Your task to perform on an android device: Go to Google Image 0: 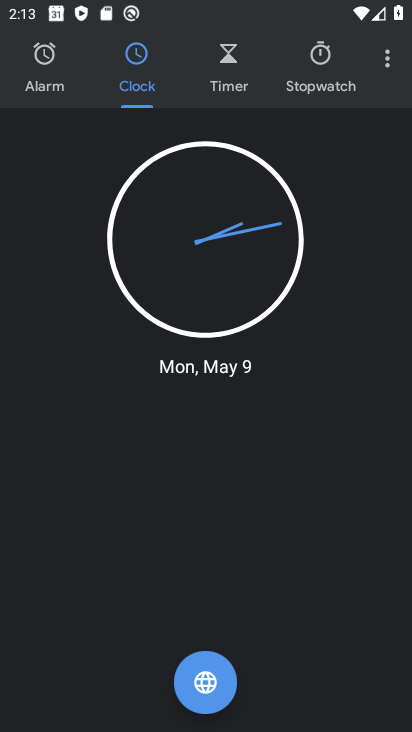
Step 0: press back button
Your task to perform on an android device: Go to Google Image 1: 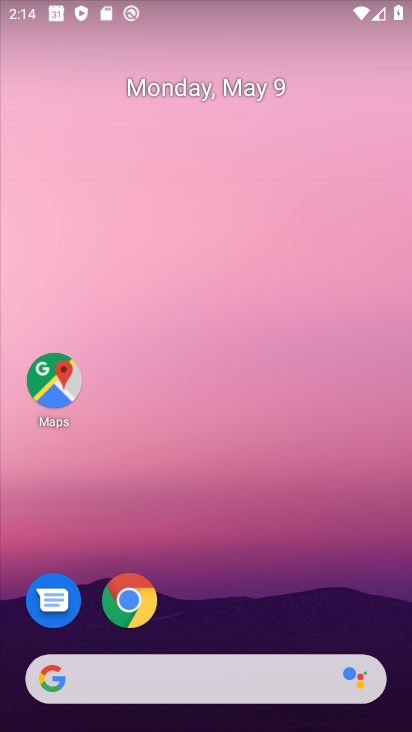
Step 1: drag from (271, 588) to (202, 0)
Your task to perform on an android device: Go to Google Image 2: 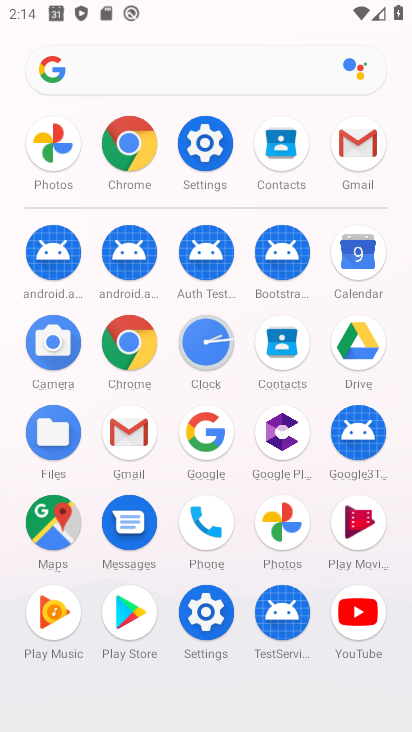
Step 2: click (127, 140)
Your task to perform on an android device: Go to Google Image 3: 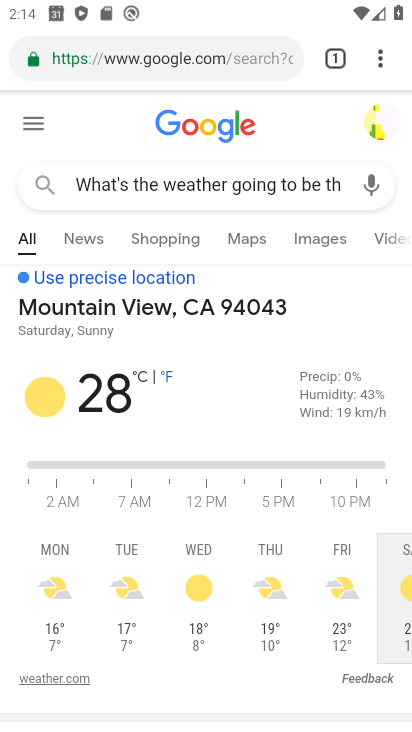
Step 3: click (180, 37)
Your task to perform on an android device: Go to Google Image 4: 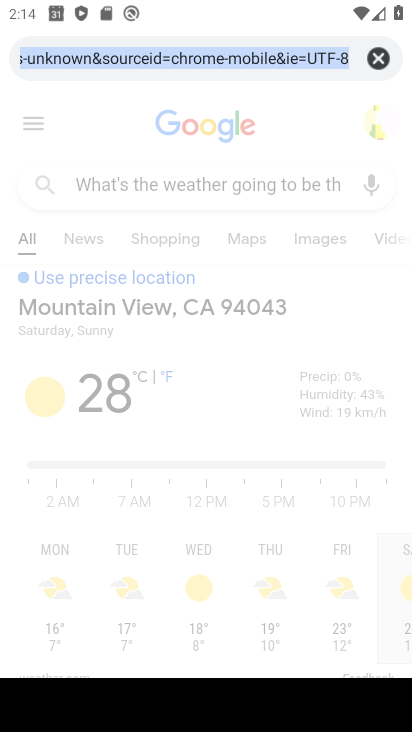
Step 4: click (378, 56)
Your task to perform on an android device: Go to Google Image 5: 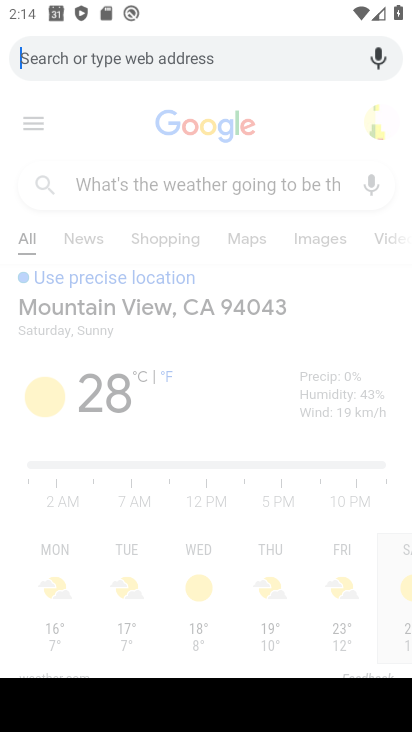
Step 5: type "Google"
Your task to perform on an android device: Go to Google Image 6: 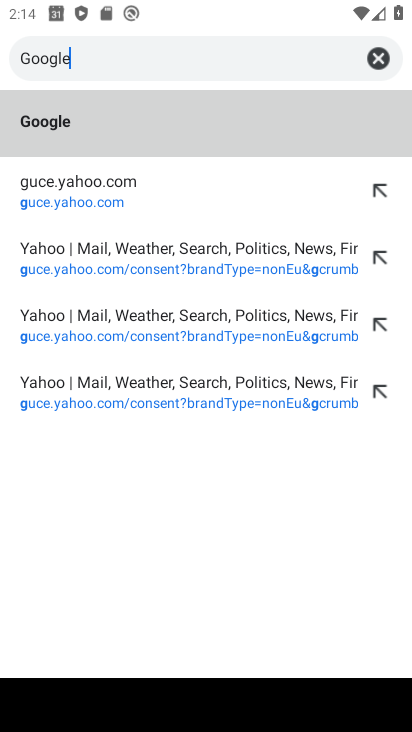
Step 6: type ""
Your task to perform on an android device: Go to Google Image 7: 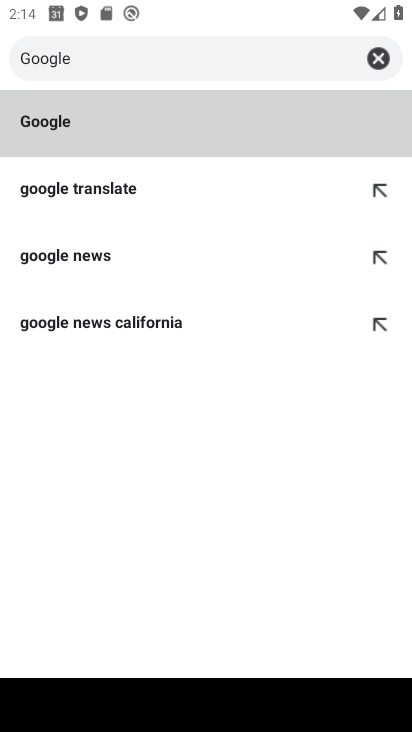
Step 7: click (122, 106)
Your task to perform on an android device: Go to Google Image 8: 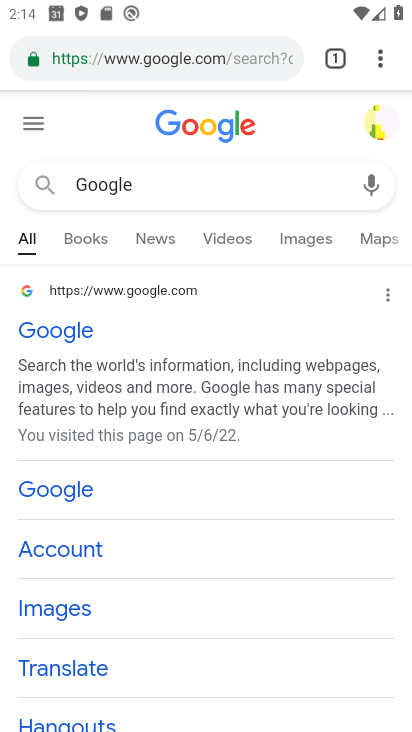
Step 8: click (40, 330)
Your task to perform on an android device: Go to Google Image 9: 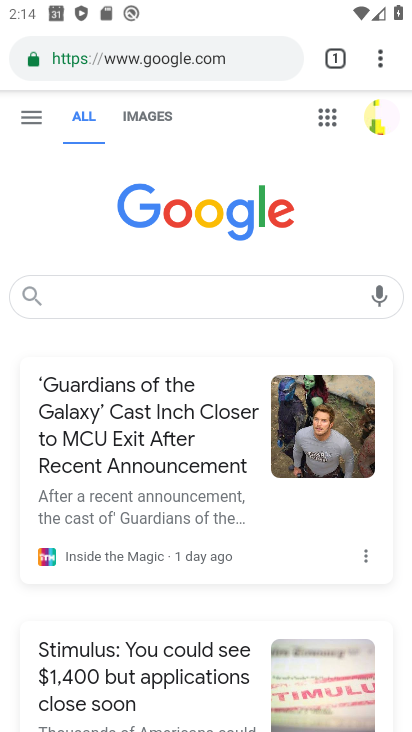
Step 9: task complete